Your task to perform on an android device: empty trash in google photos Image 0: 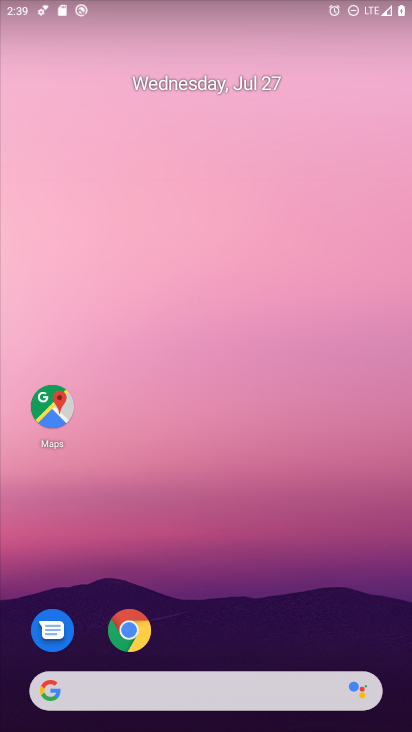
Step 0: drag from (357, 637) to (316, 139)
Your task to perform on an android device: empty trash in google photos Image 1: 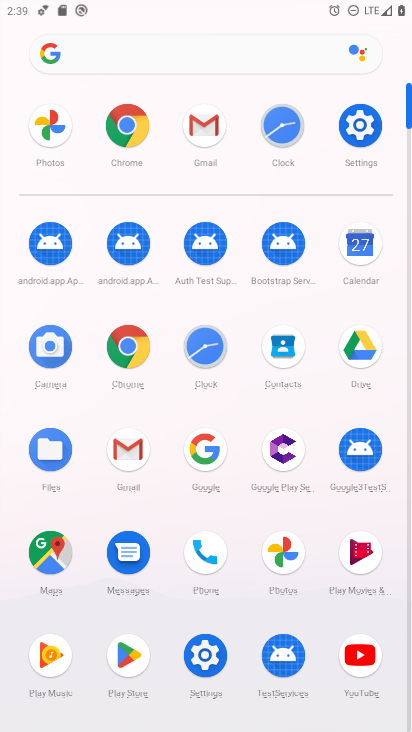
Step 1: click (285, 557)
Your task to perform on an android device: empty trash in google photos Image 2: 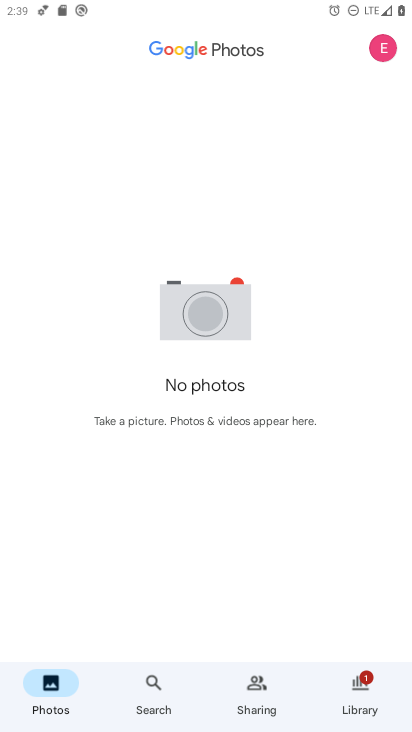
Step 2: click (361, 682)
Your task to perform on an android device: empty trash in google photos Image 3: 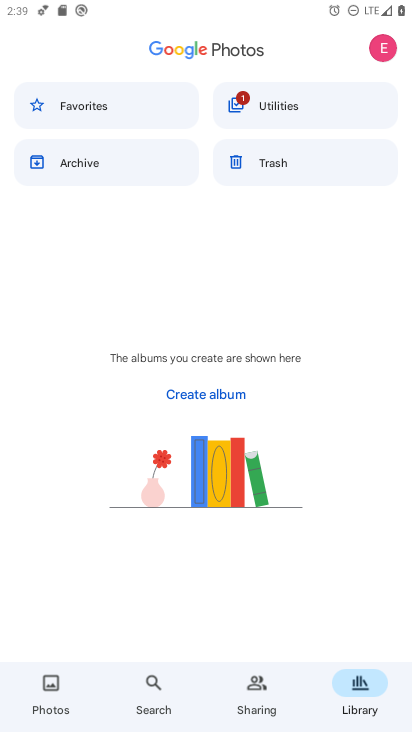
Step 3: click (263, 161)
Your task to perform on an android device: empty trash in google photos Image 4: 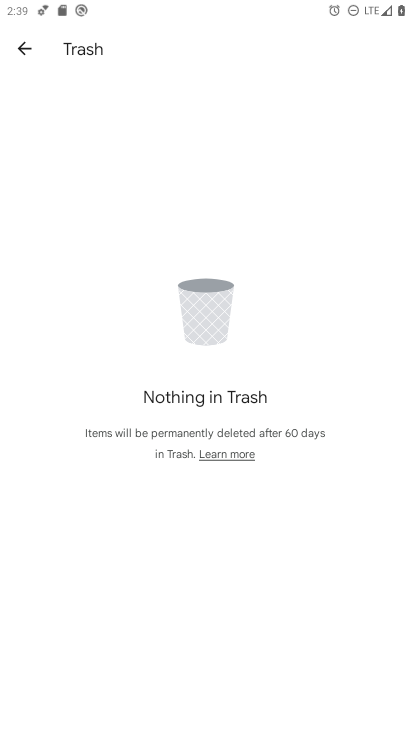
Step 4: task complete